Your task to perform on an android device: Open the stopwatch Image 0: 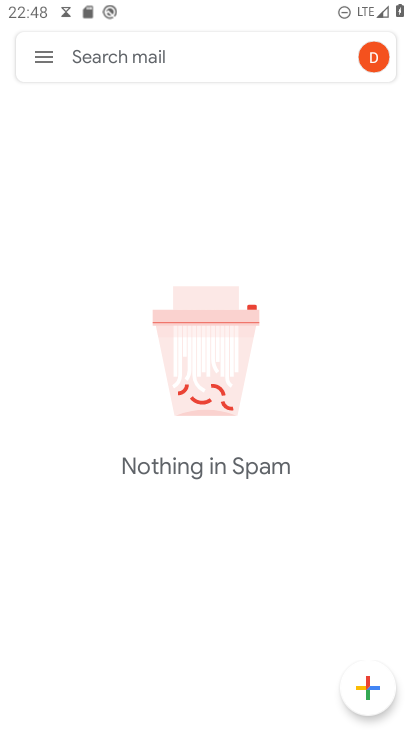
Step 0: press home button
Your task to perform on an android device: Open the stopwatch Image 1: 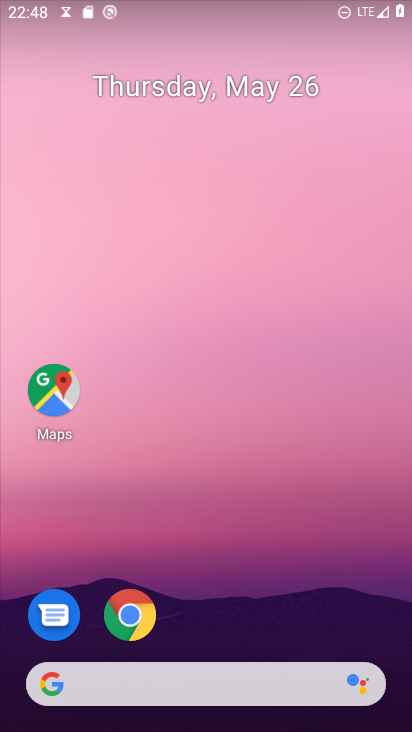
Step 1: drag from (212, 595) to (212, 234)
Your task to perform on an android device: Open the stopwatch Image 2: 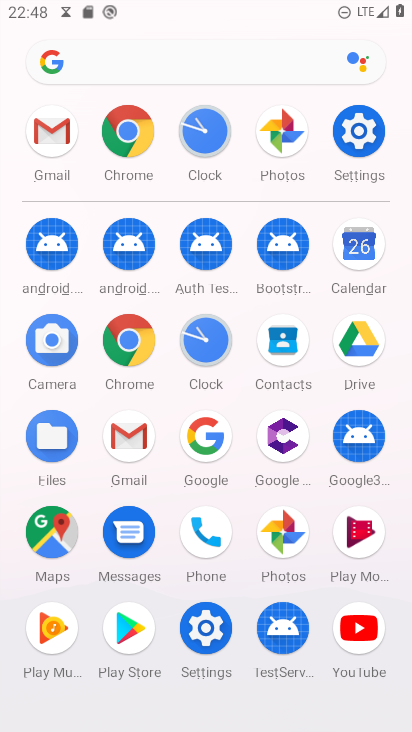
Step 2: click (215, 338)
Your task to perform on an android device: Open the stopwatch Image 3: 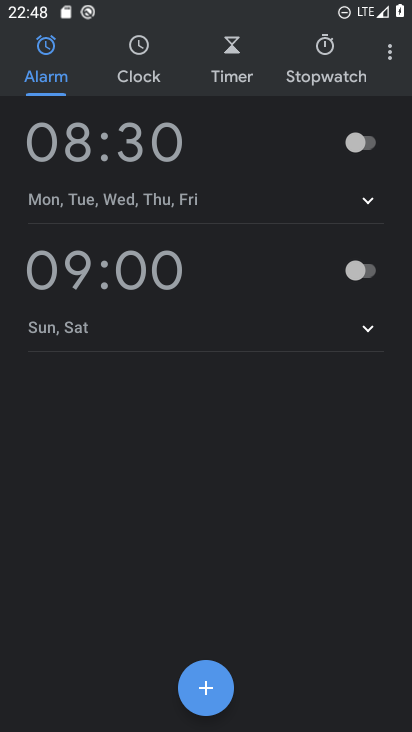
Step 3: click (317, 35)
Your task to perform on an android device: Open the stopwatch Image 4: 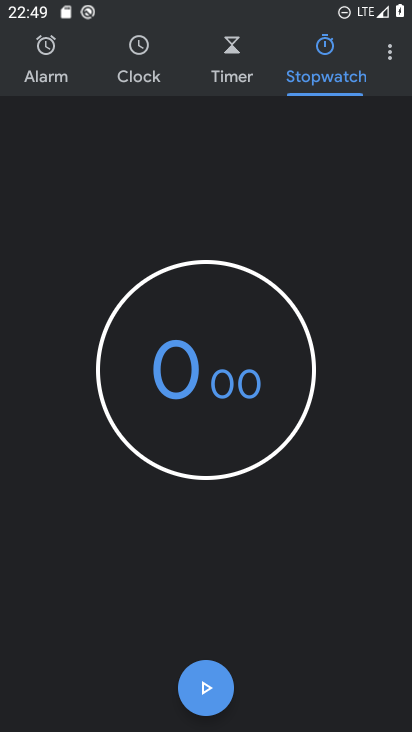
Step 4: task complete